Your task to perform on an android device: Is it going to rain this weekend? Image 0: 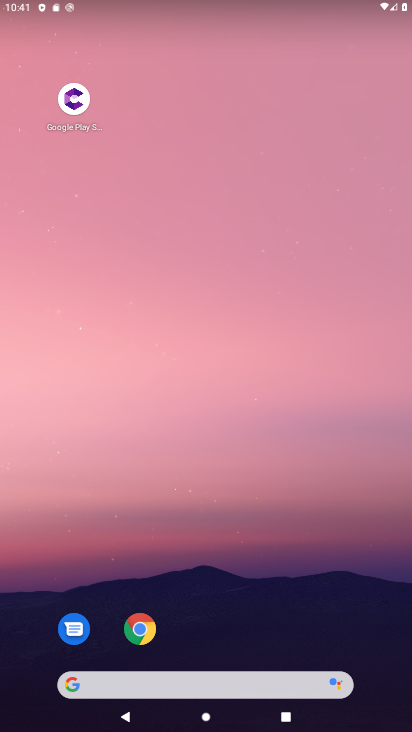
Step 0: click (190, 687)
Your task to perform on an android device: Is it going to rain this weekend? Image 1: 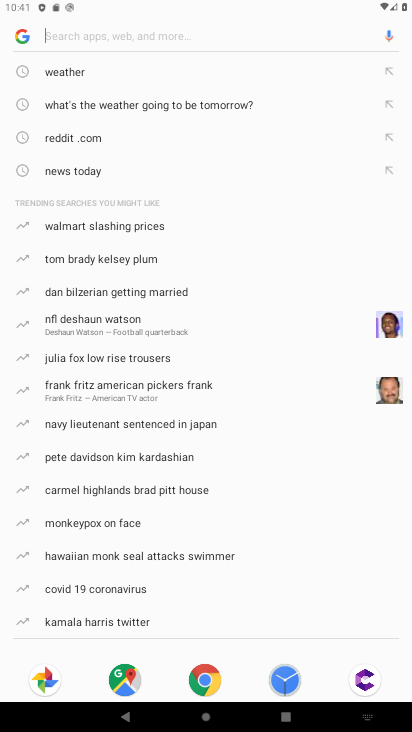
Step 1: click (65, 69)
Your task to perform on an android device: Is it going to rain this weekend? Image 2: 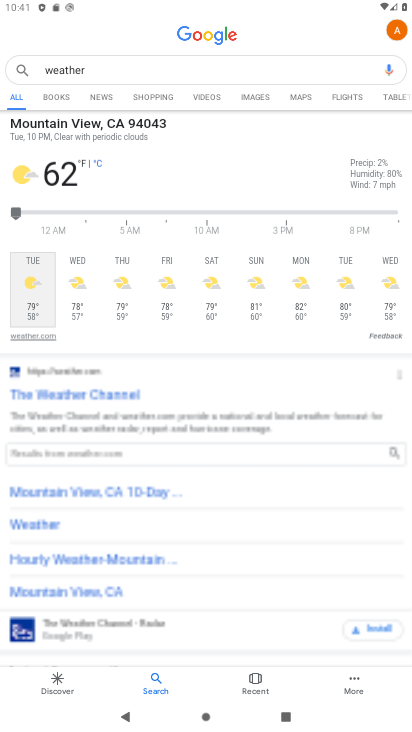
Step 2: click (31, 337)
Your task to perform on an android device: Is it going to rain this weekend? Image 3: 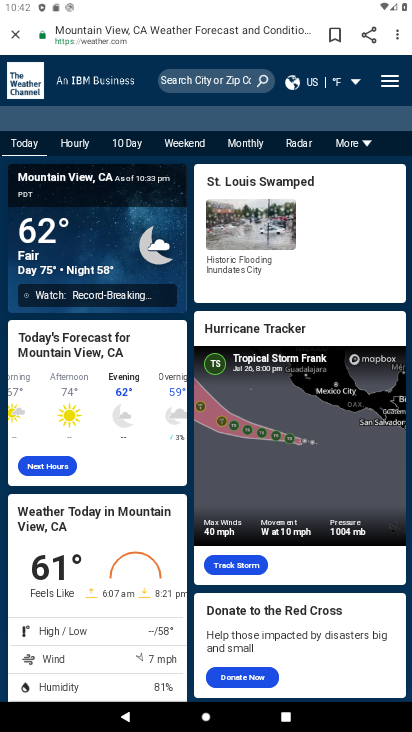
Step 3: click (184, 144)
Your task to perform on an android device: Is it going to rain this weekend? Image 4: 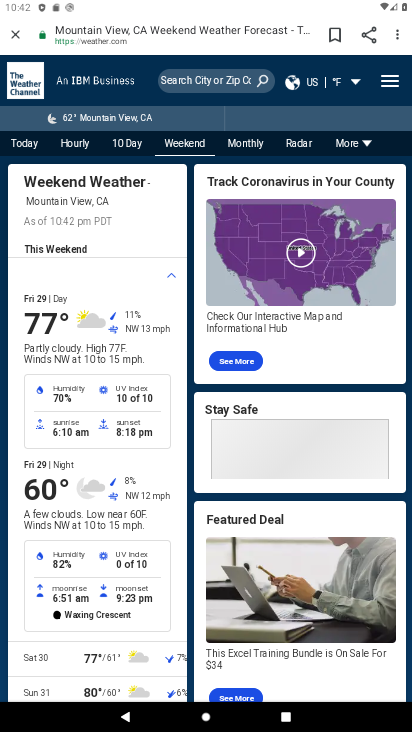
Step 4: click (108, 490)
Your task to perform on an android device: Is it going to rain this weekend? Image 5: 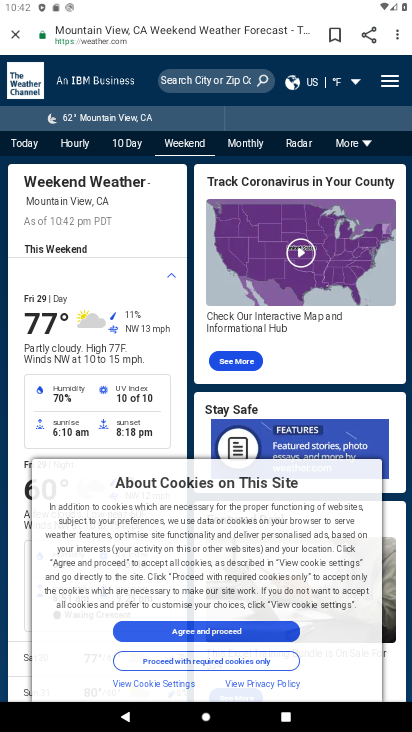
Step 5: task complete